Your task to perform on an android device: Show me productivity apps on the Play Store Image 0: 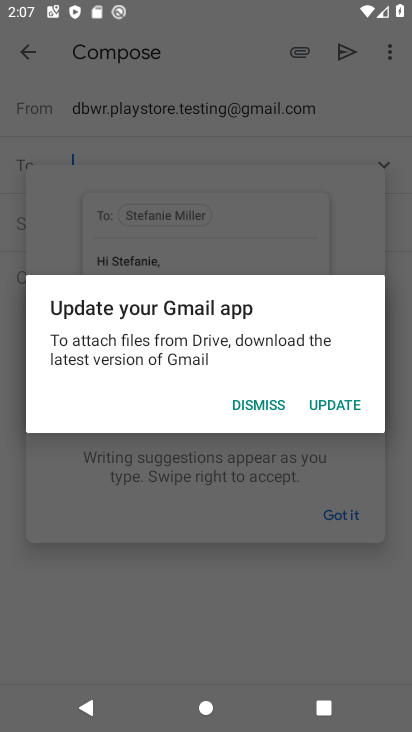
Step 0: press home button
Your task to perform on an android device: Show me productivity apps on the Play Store Image 1: 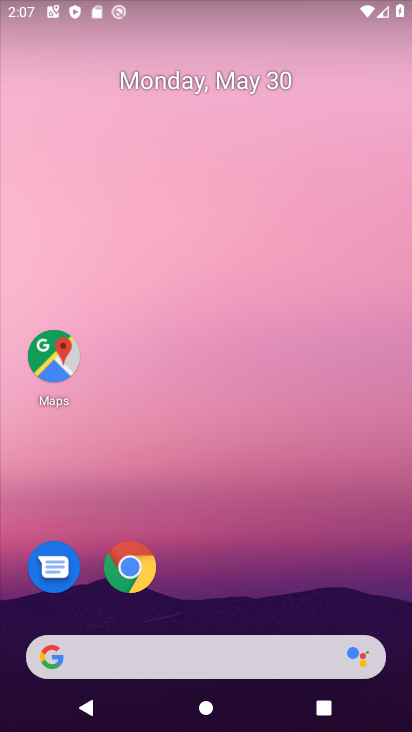
Step 1: drag from (197, 636) to (208, 196)
Your task to perform on an android device: Show me productivity apps on the Play Store Image 2: 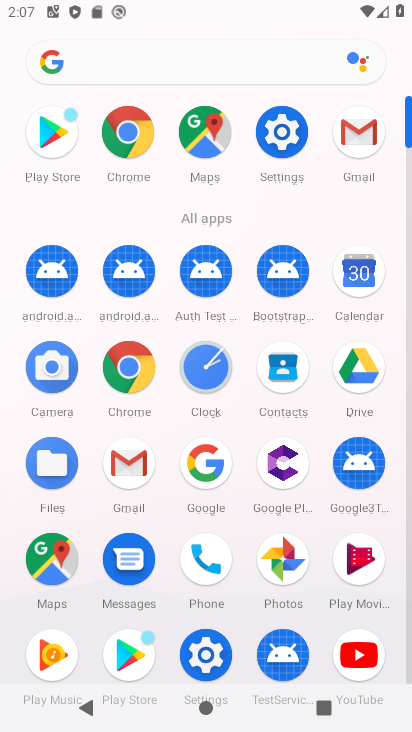
Step 2: click (134, 657)
Your task to perform on an android device: Show me productivity apps on the Play Store Image 3: 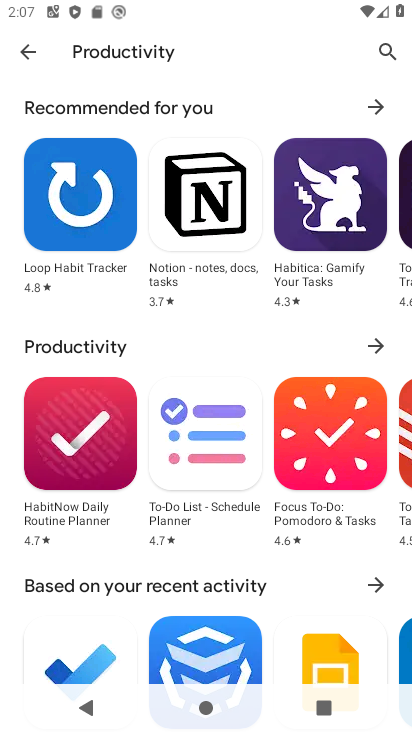
Step 3: task complete